Your task to perform on an android device: Open calendar and show me the third week of next month Image 0: 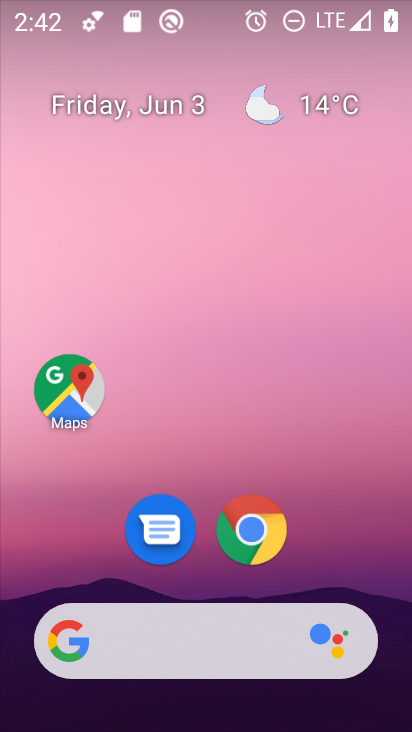
Step 0: drag from (378, 579) to (373, 234)
Your task to perform on an android device: Open calendar and show me the third week of next month Image 1: 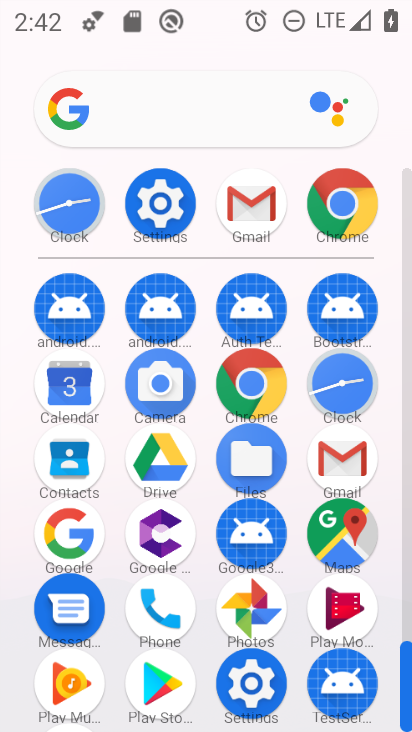
Step 1: click (76, 403)
Your task to perform on an android device: Open calendar and show me the third week of next month Image 2: 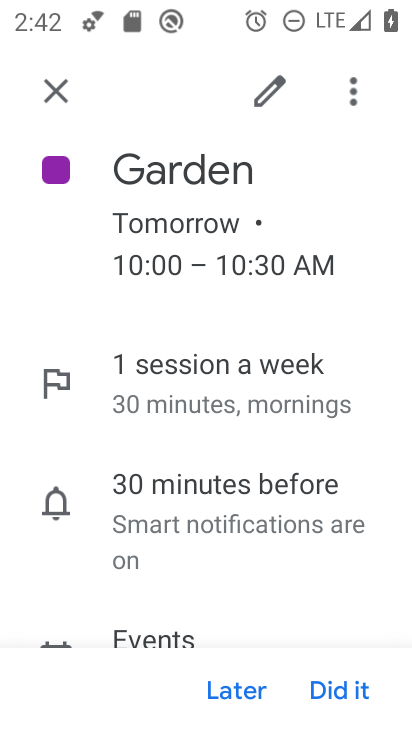
Step 2: click (64, 99)
Your task to perform on an android device: Open calendar and show me the third week of next month Image 3: 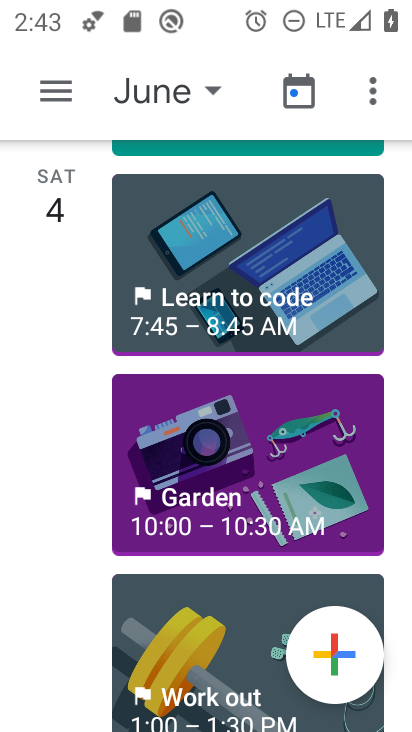
Step 3: click (205, 91)
Your task to perform on an android device: Open calendar and show me the third week of next month Image 4: 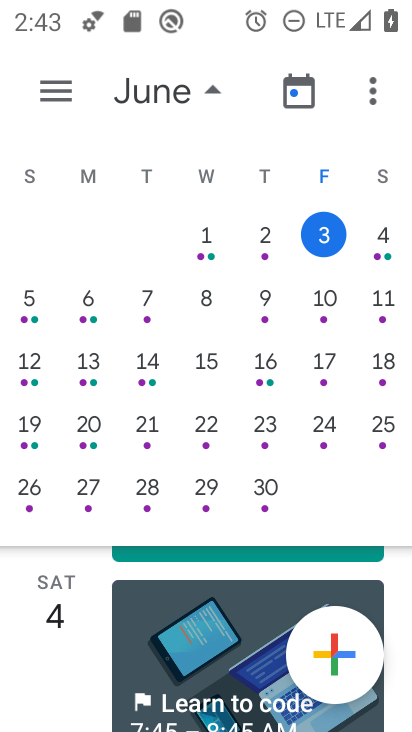
Step 4: drag from (388, 271) to (20, 272)
Your task to perform on an android device: Open calendar and show me the third week of next month Image 5: 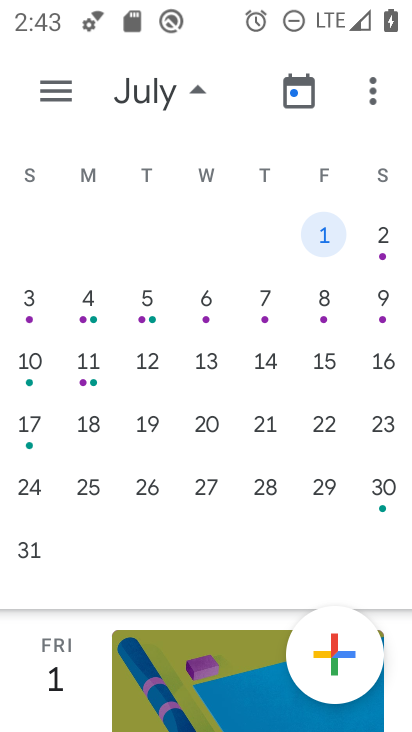
Step 5: click (86, 366)
Your task to perform on an android device: Open calendar and show me the third week of next month Image 6: 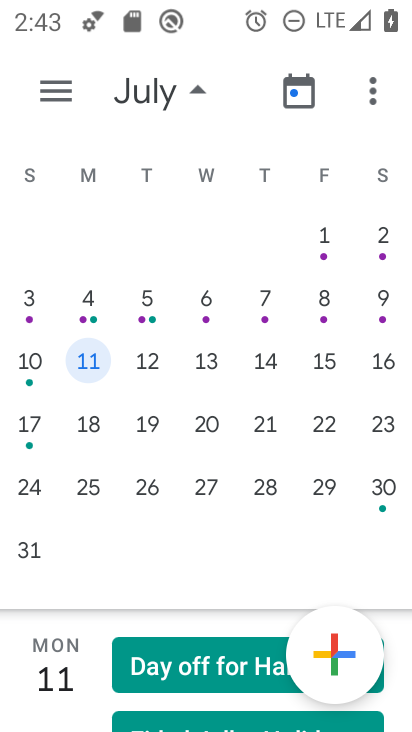
Step 6: task complete